Your task to perform on an android device: Open Google Image 0: 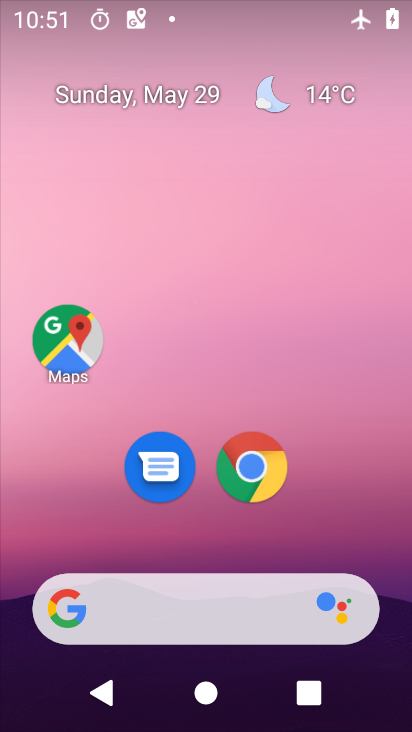
Step 0: drag from (198, 553) to (194, 204)
Your task to perform on an android device: Open Google Image 1: 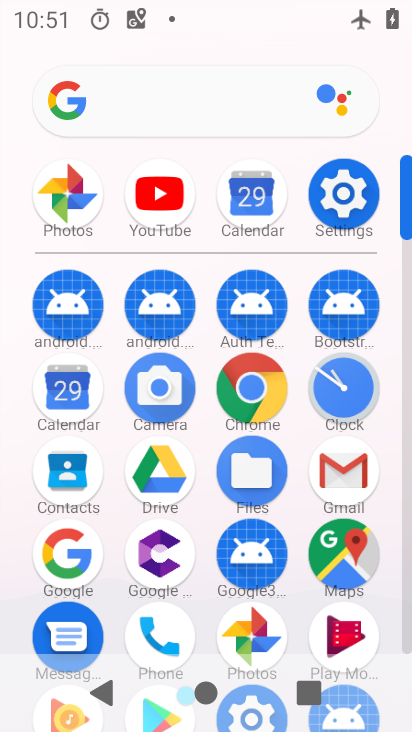
Step 1: click (83, 549)
Your task to perform on an android device: Open Google Image 2: 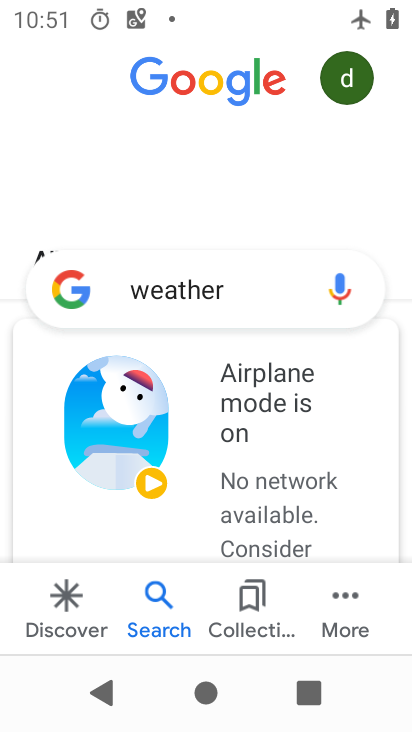
Step 2: task complete